Your task to perform on an android device: change the clock style Image 0: 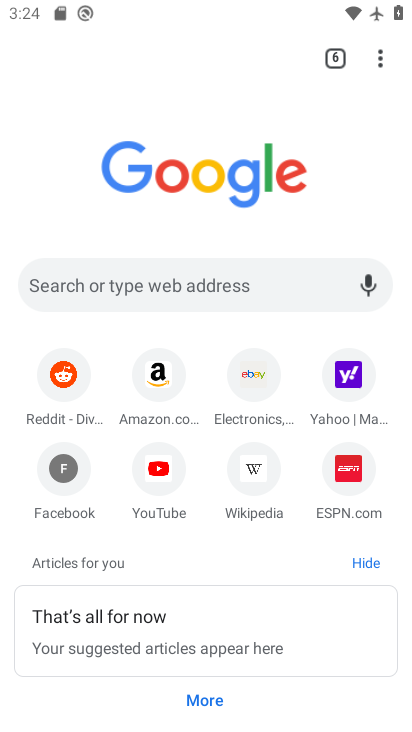
Step 0: press home button
Your task to perform on an android device: change the clock style Image 1: 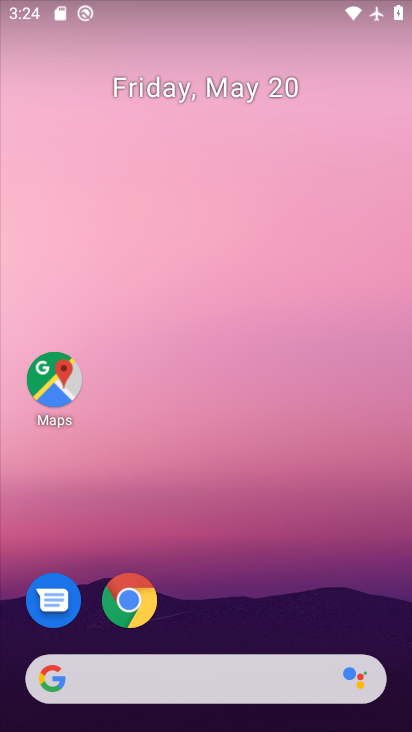
Step 1: drag from (323, 506) to (175, 11)
Your task to perform on an android device: change the clock style Image 2: 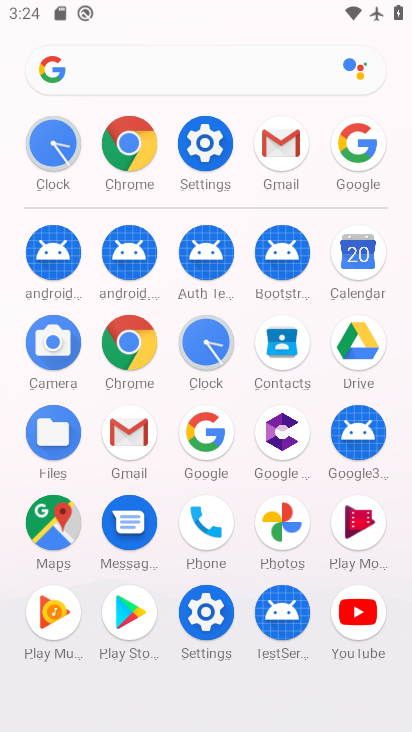
Step 2: click (210, 352)
Your task to perform on an android device: change the clock style Image 3: 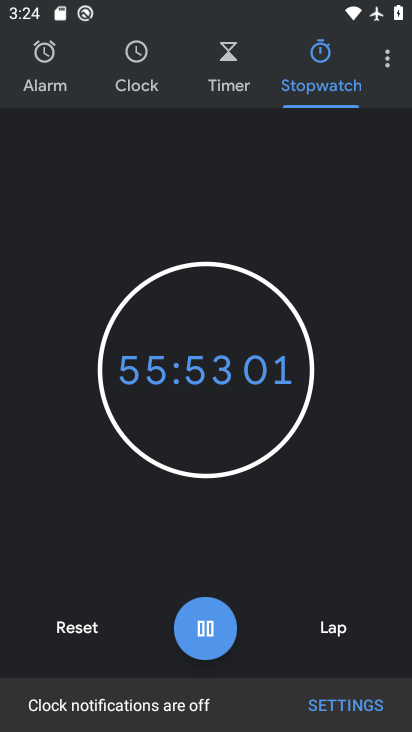
Step 3: click (385, 73)
Your task to perform on an android device: change the clock style Image 4: 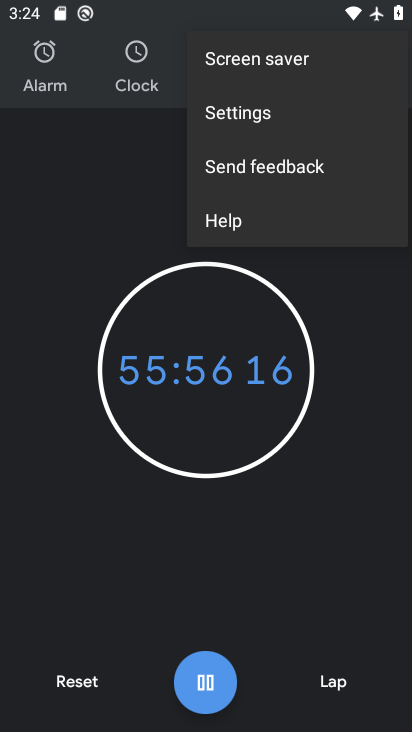
Step 4: click (255, 110)
Your task to perform on an android device: change the clock style Image 5: 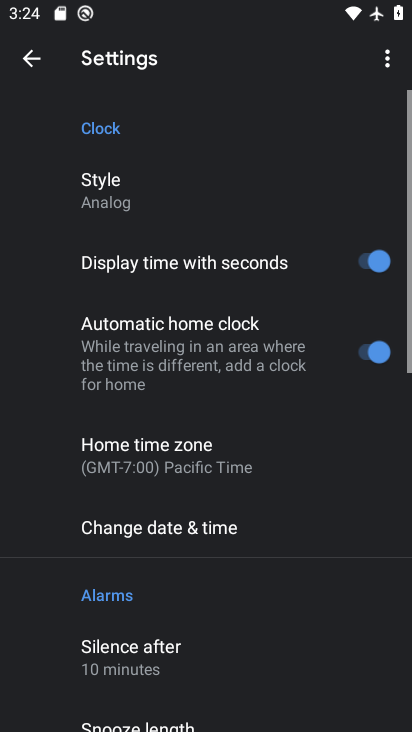
Step 5: click (108, 190)
Your task to perform on an android device: change the clock style Image 6: 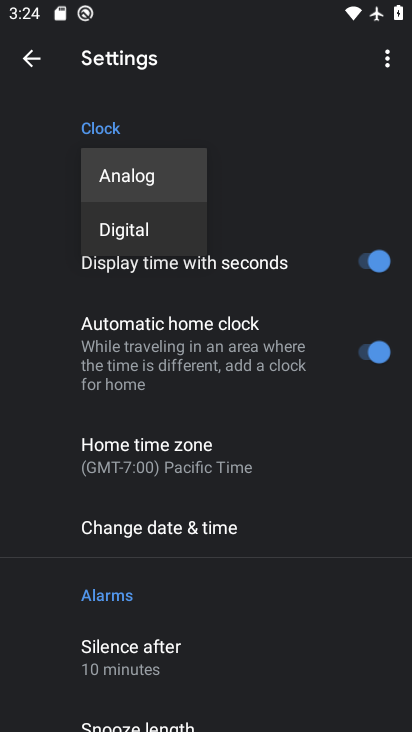
Step 6: click (184, 230)
Your task to perform on an android device: change the clock style Image 7: 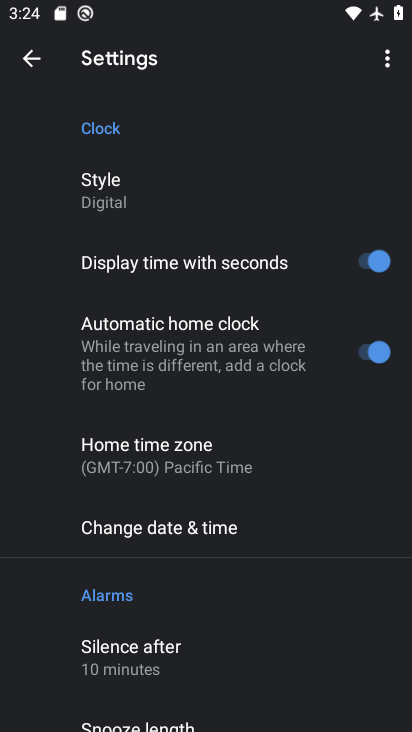
Step 7: task complete